Your task to perform on an android device: turn off sleep mode Image 0: 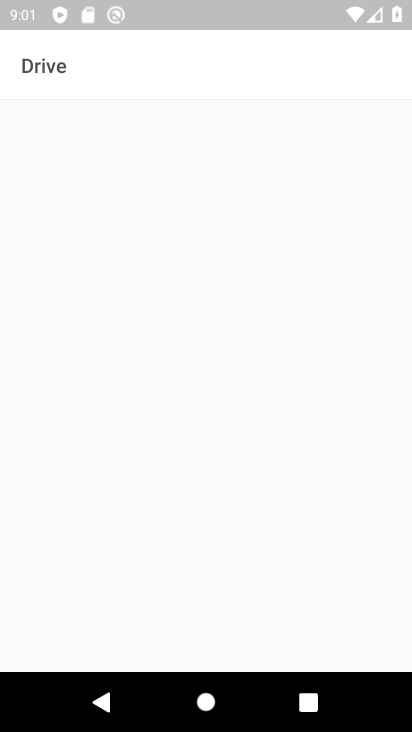
Step 0: press home button
Your task to perform on an android device: turn off sleep mode Image 1: 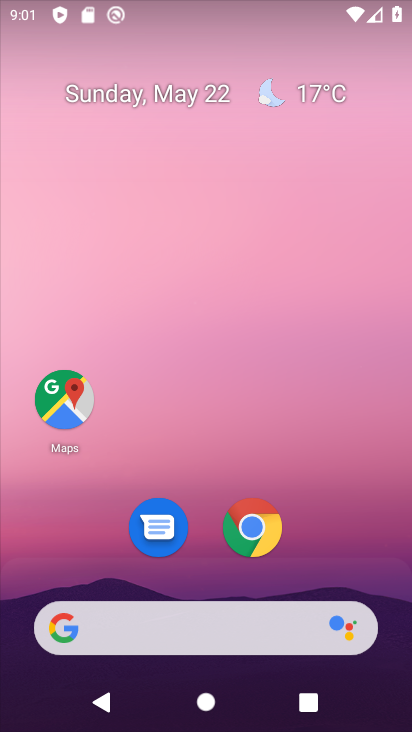
Step 1: drag from (330, 510) to (326, 84)
Your task to perform on an android device: turn off sleep mode Image 2: 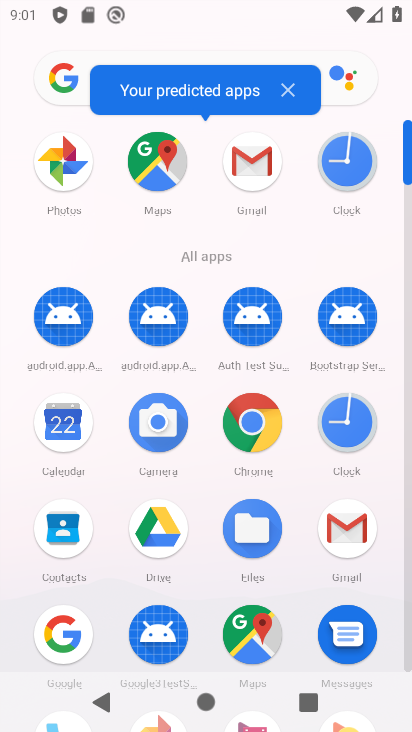
Step 2: drag from (202, 584) to (202, 128)
Your task to perform on an android device: turn off sleep mode Image 3: 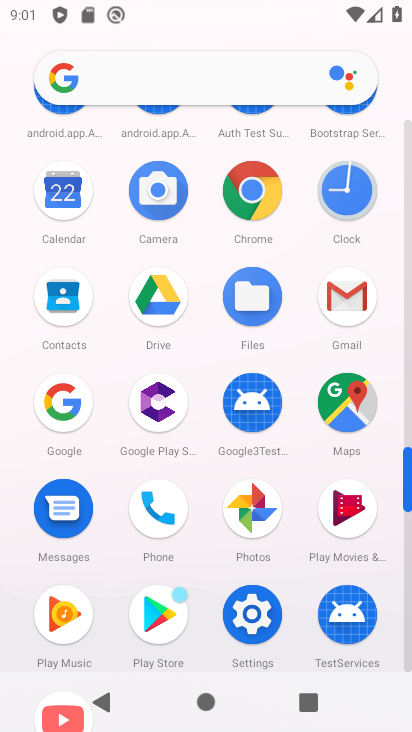
Step 3: click (160, 616)
Your task to perform on an android device: turn off sleep mode Image 4: 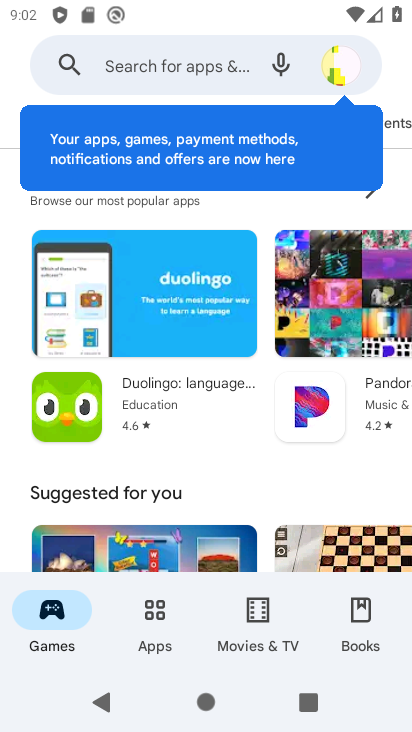
Step 4: press home button
Your task to perform on an android device: turn off sleep mode Image 5: 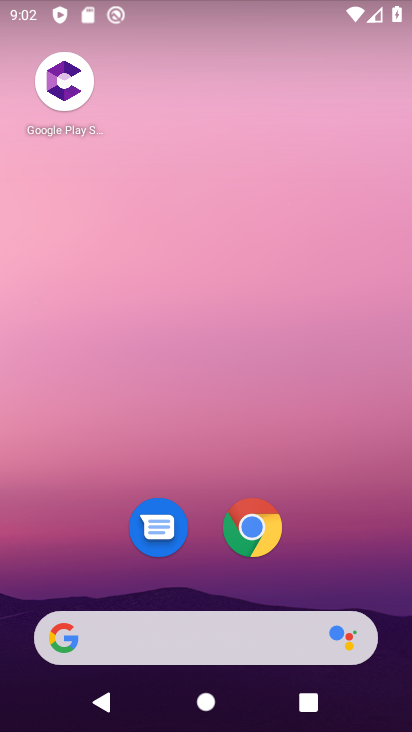
Step 5: drag from (316, 533) to (242, 38)
Your task to perform on an android device: turn off sleep mode Image 6: 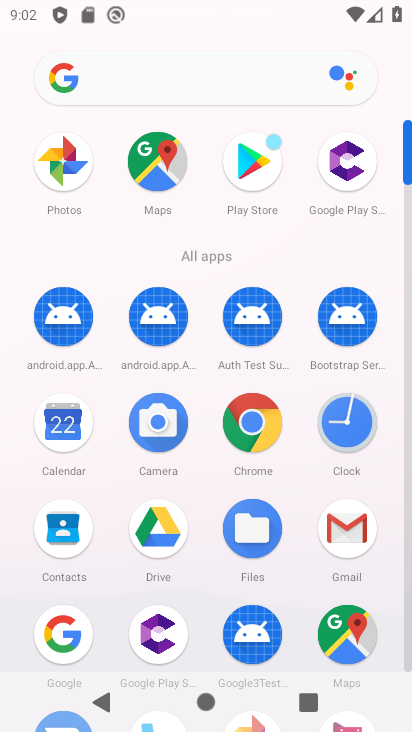
Step 6: drag from (181, 496) to (158, 179)
Your task to perform on an android device: turn off sleep mode Image 7: 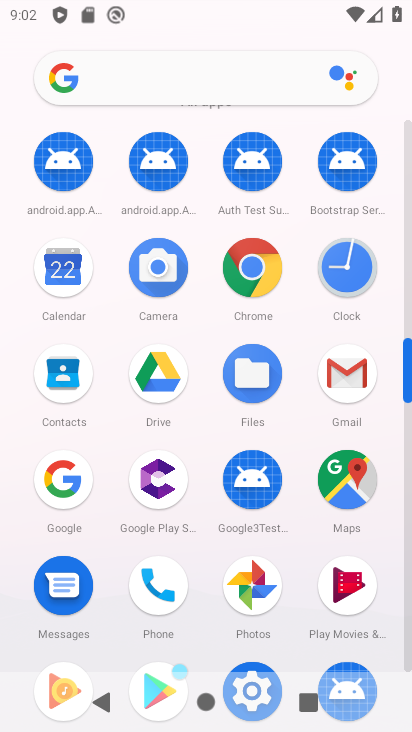
Step 7: drag from (216, 603) to (208, 280)
Your task to perform on an android device: turn off sleep mode Image 8: 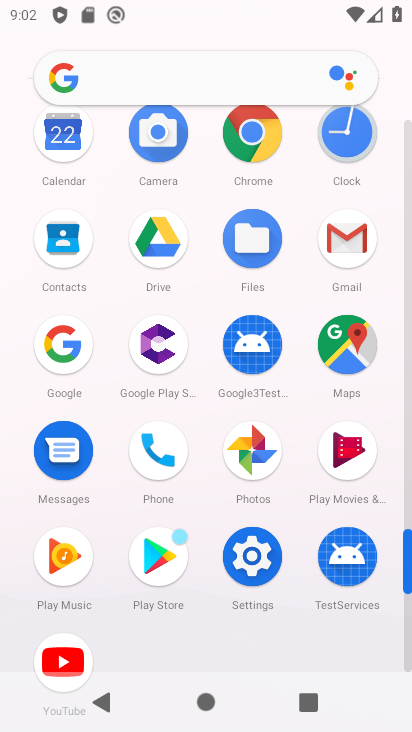
Step 8: click (251, 555)
Your task to perform on an android device: turn off sleep mode Image 9: 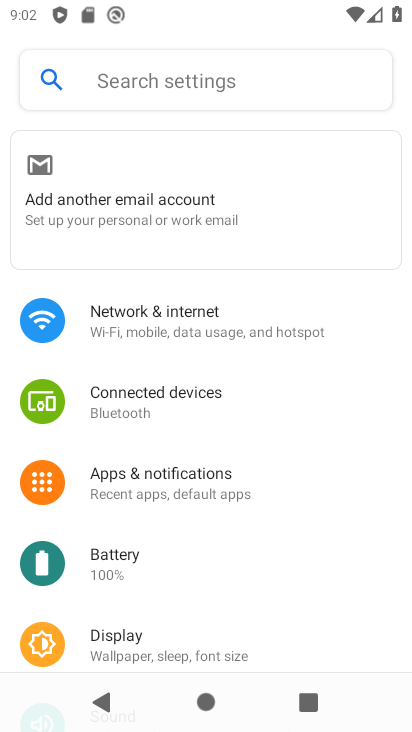
Step 9: click (174, 495)
Your task to perform on an android device: turn off sleep mode Image 10: 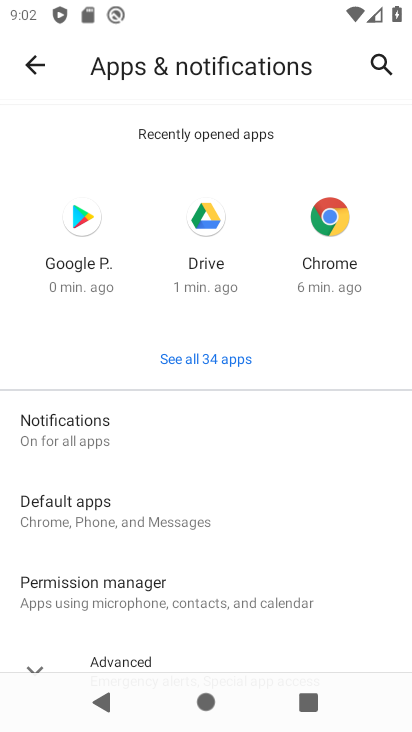
Step 10: task complete